Your task to perform on an android device: toggle translation in the chrome app Image 0: 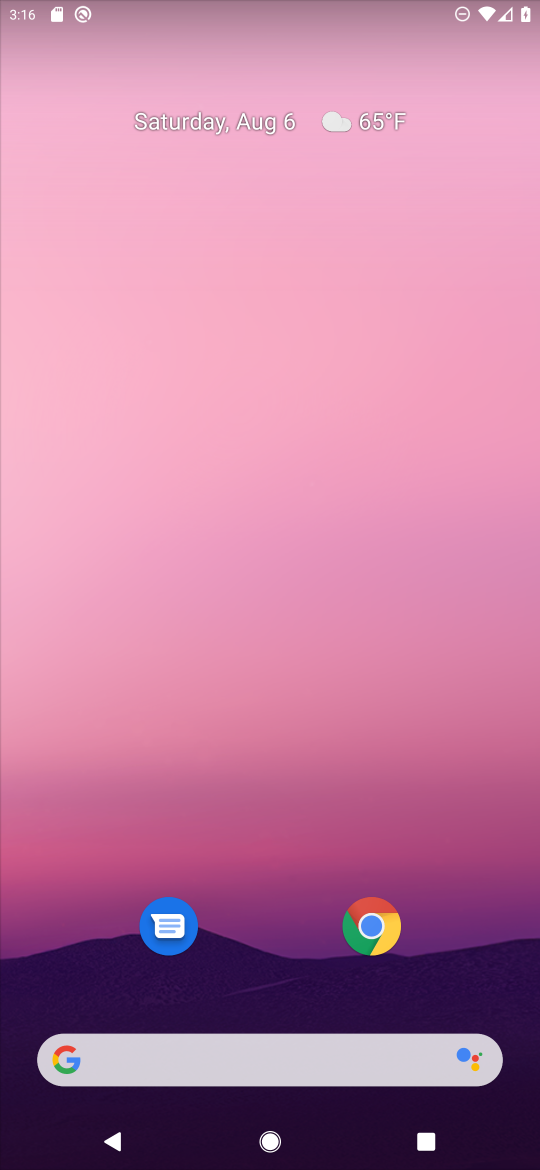
Step 0: click (353, 950)
Your task to perform on an android device: toggle translation in the chrome app Image 1: 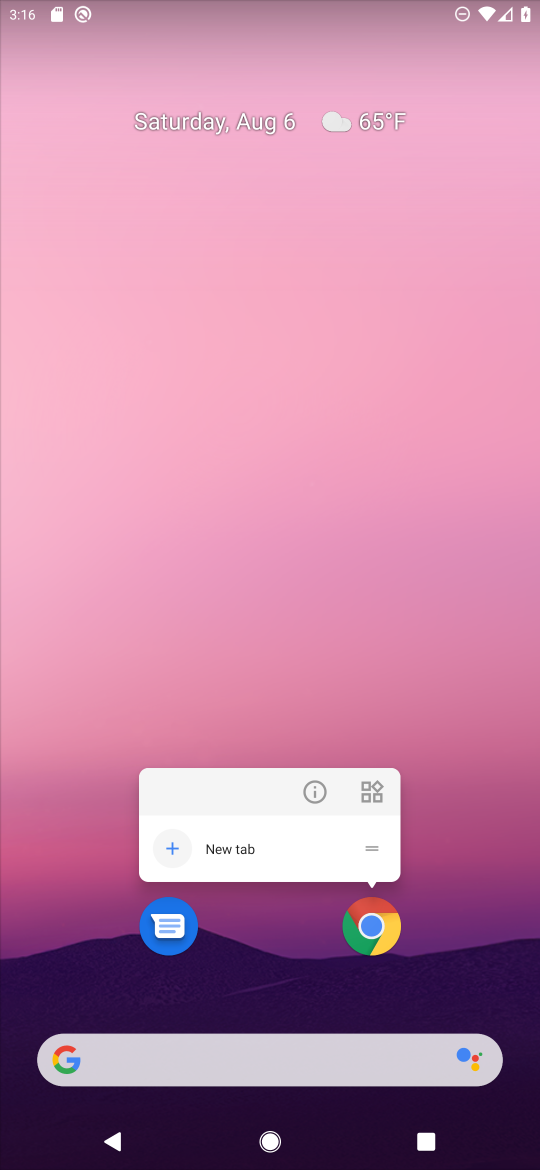
Step 1: click (353, 950)
Your task to perform on an android device: toggle translation in the chrome app Image 2: 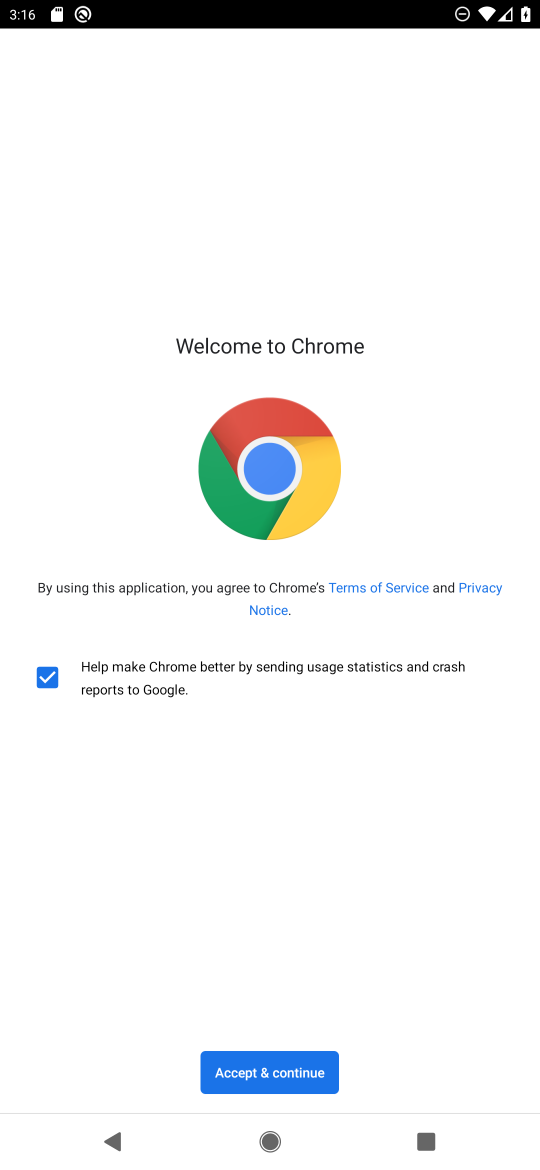
Step 2: click (256, 1075)
Your task to perform on an android device: toggle translation in the chrome app Image 3: 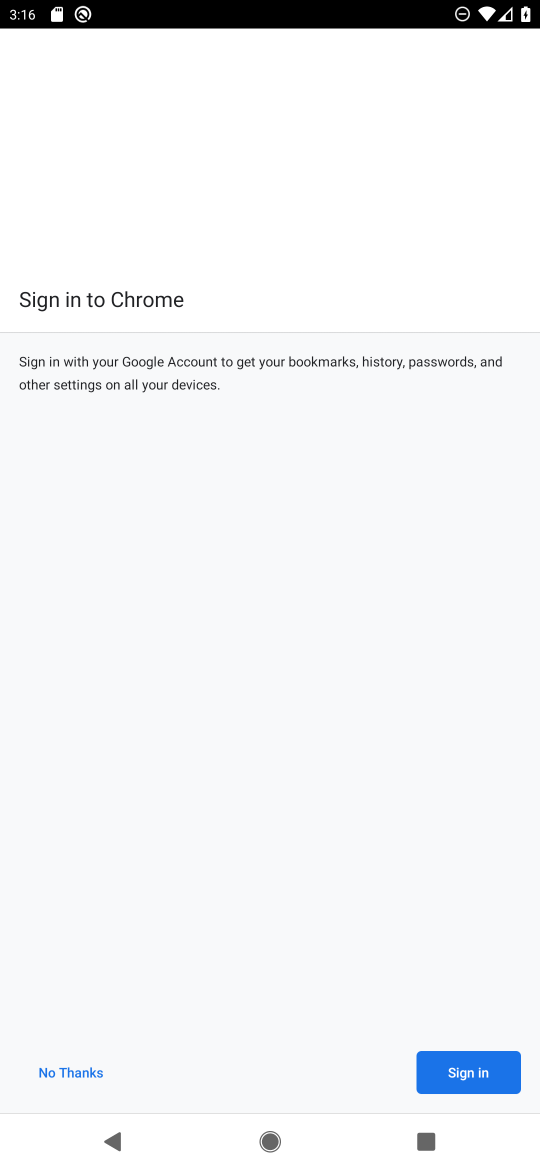
Step 3: click (451, 1058)
Your task to perform on an android device: toggle translation in the chrome app Image 4: 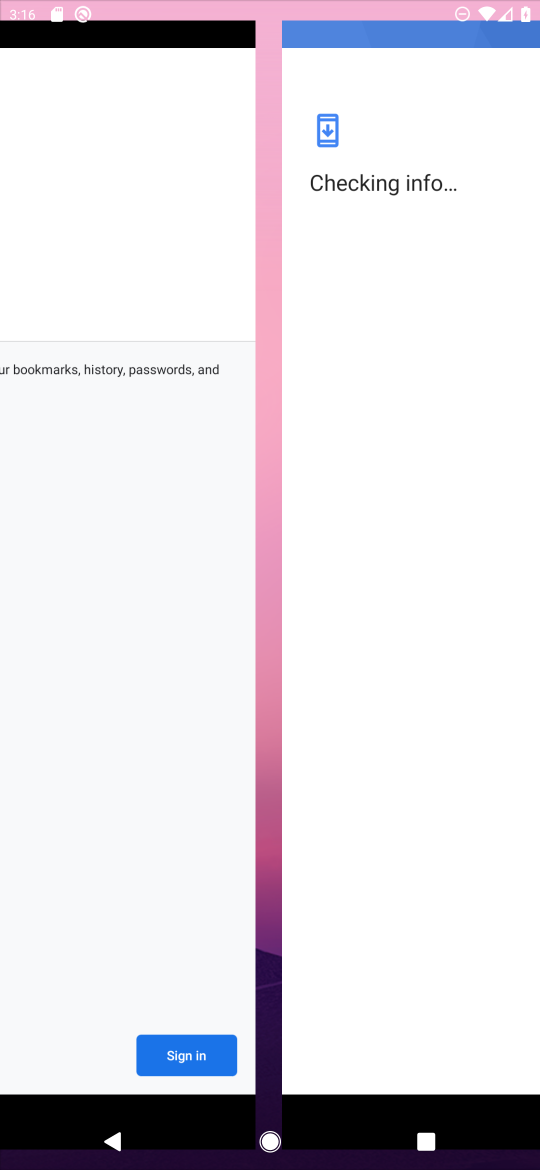
Step 4: click (437, 1073)
Your task to perform on an android device: toggle translation in the chrome app Image 5: 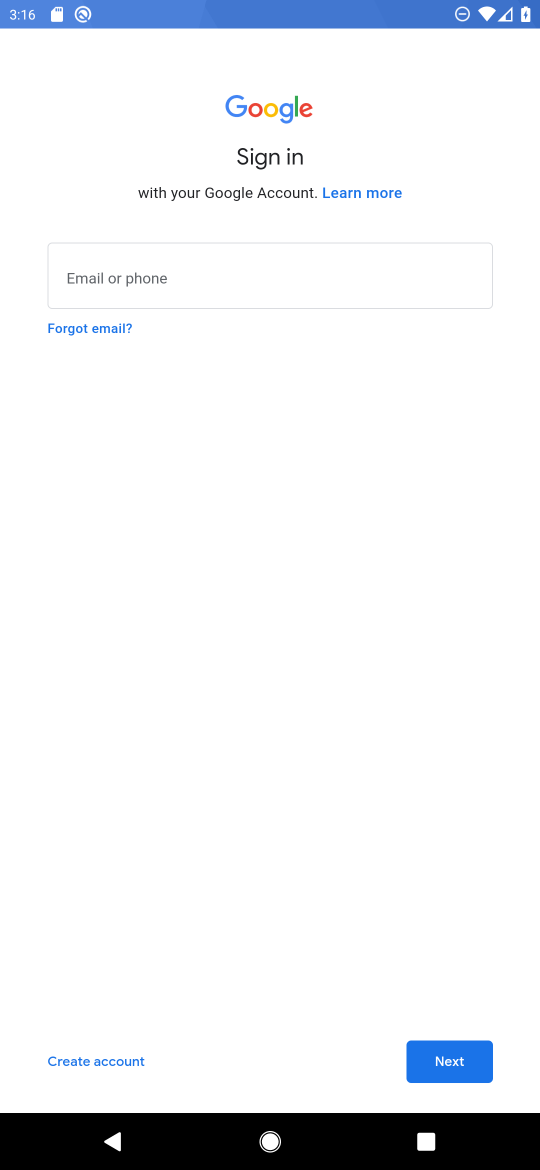
Step 5: click (442, 1059)
Your task to perform on an android device: toggle translation in the chrome app Image 6: 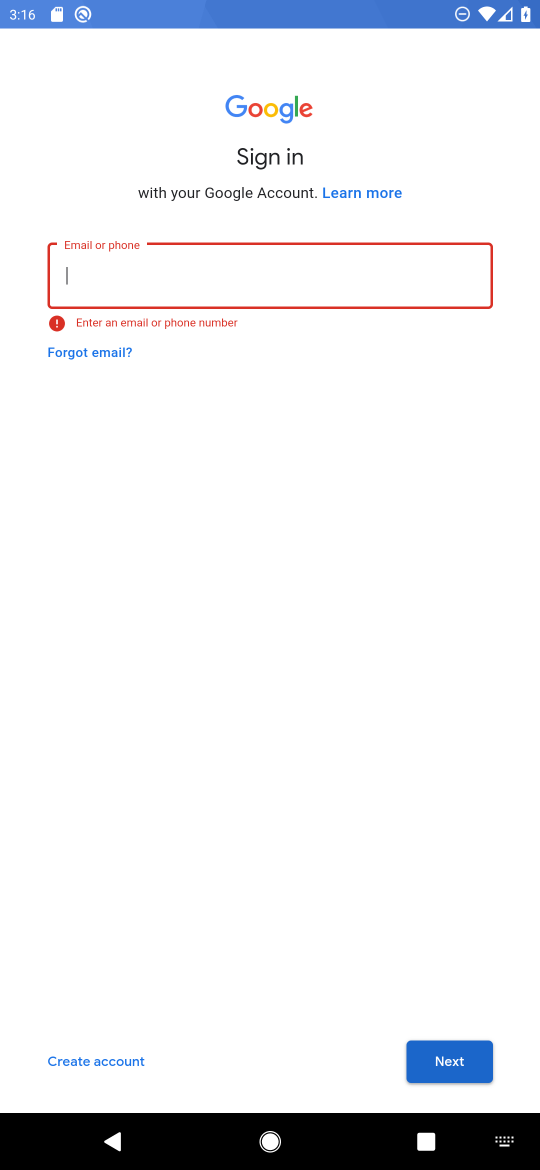
Step 6: task complete